Your task to perform on an android device: Go to calendar. Show me events next week Image 0: 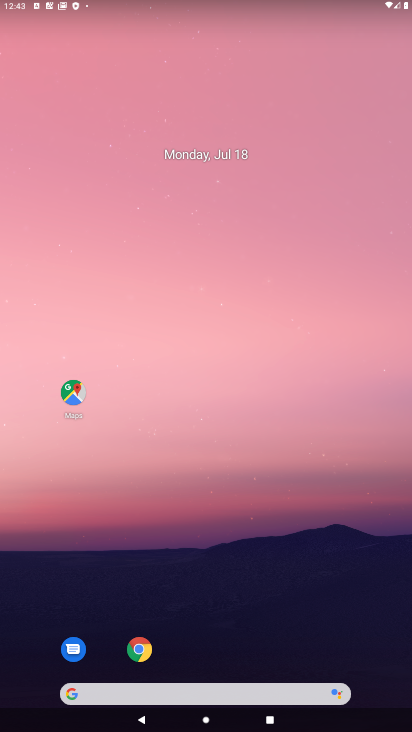
Step 0: drag from (354, 660) to (310, 184)
Your task to perform on an android device: Go to calendar. Show me events next week Image 1: 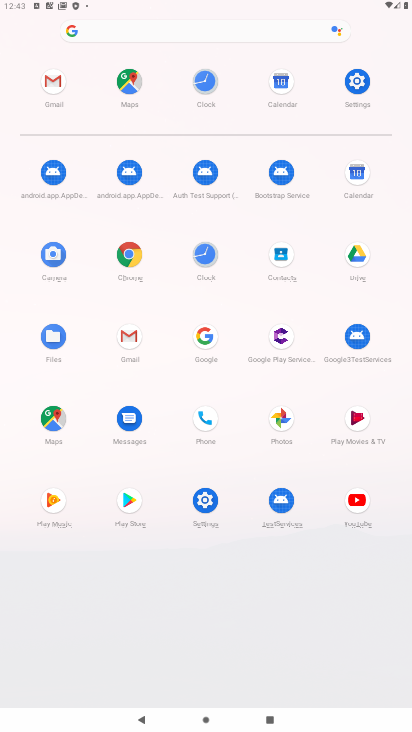
Step 1: click (357, 173)
Your task to perform on an android device: Go to calendar. Show me events next week Image 2: 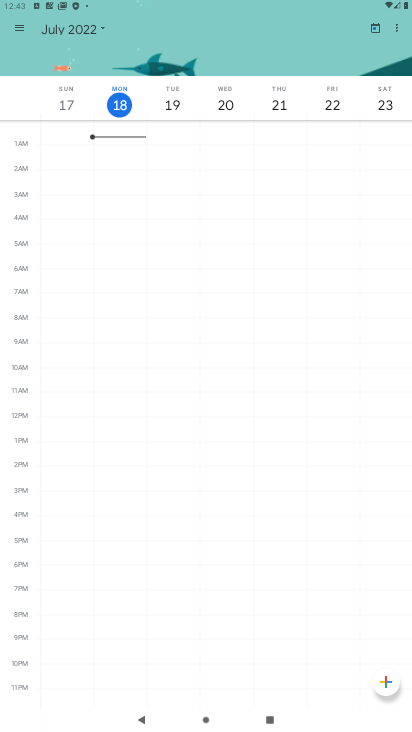
Step 2: click (12, 30)
Your task to perform on an android device: Go to calendar. Show me events next week Image 3: 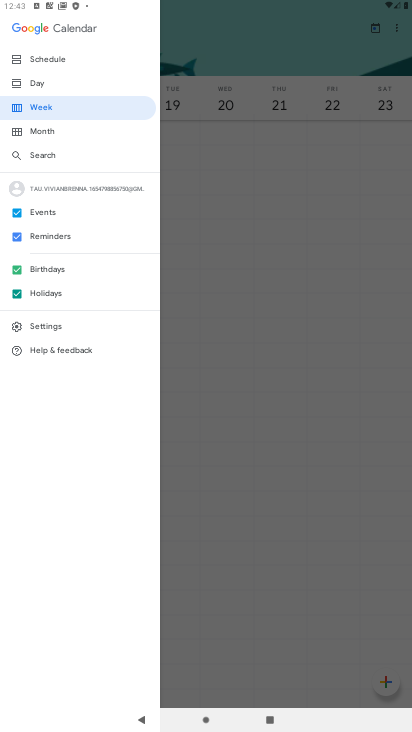
Step 3: click (179, 189)
Your task to perform on an android device: Go to calendar. Show me events next week Image 4: 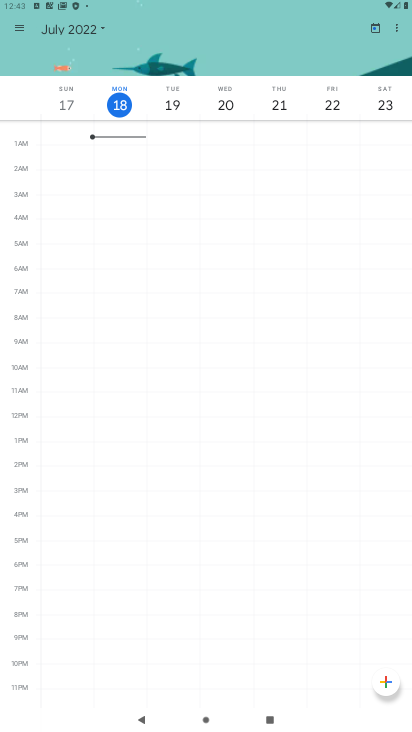
Step 4: click (98, 26)
Your task to perform on an android device: Go to calendar. Show me events next week Image 5: 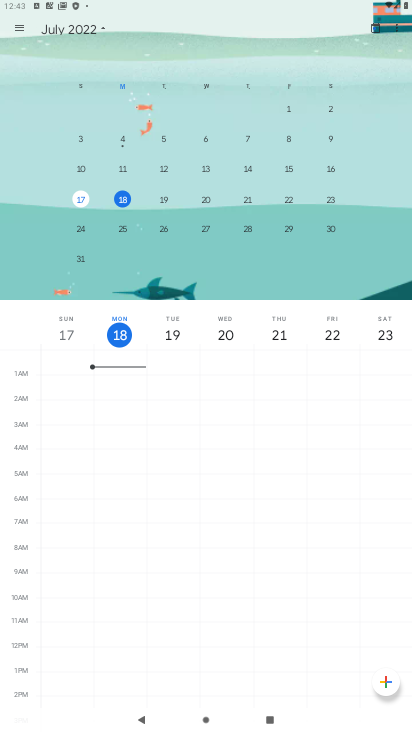
Step 5: click (81, 228)
Your task to perform on an android device: Go to calendar. Show me events next week Image 6: 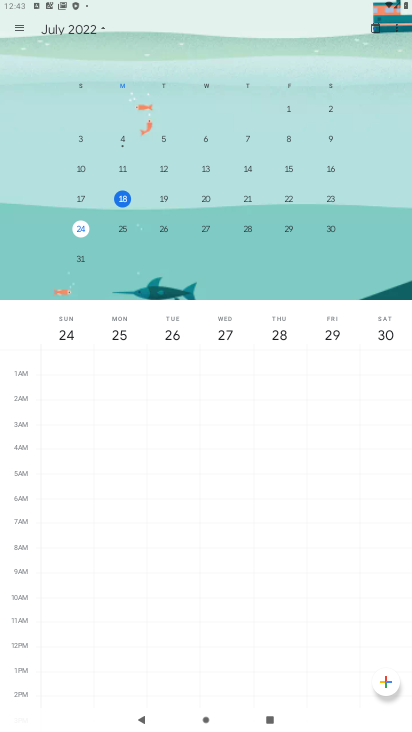
Step 6: task complete